Your task to perform on an android device: Go to calendar. Show me events next week Image 0: 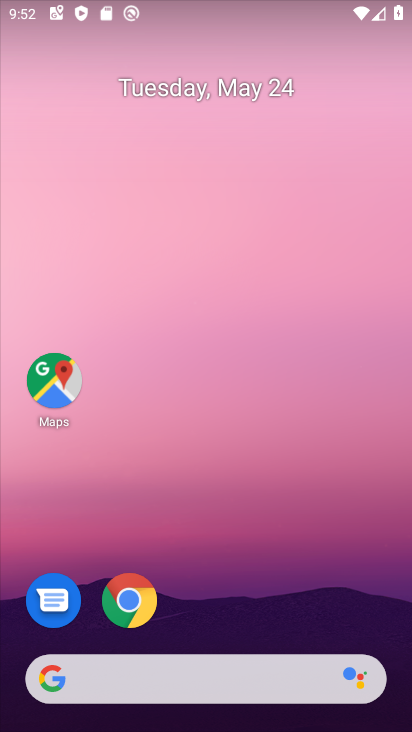
Step 0: drag from (230, 629) to (102, 8)
Your task to perform on an android device: Go to calendar. Show me events next week Image 1: 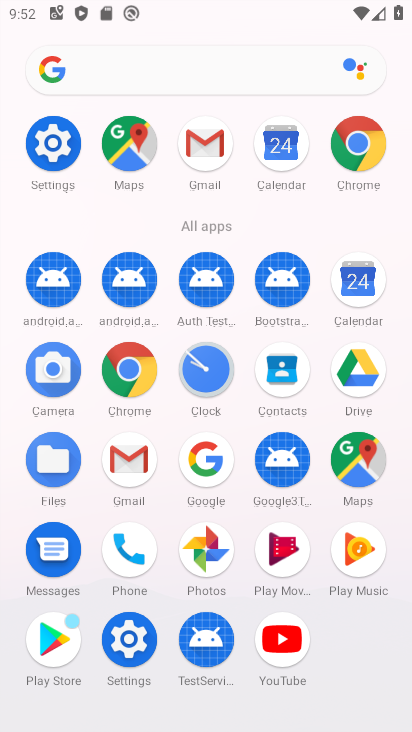
Step 1: click (362, 303)
Your task to perform on an android device: Go to calendar. Show me events next week Image 2: 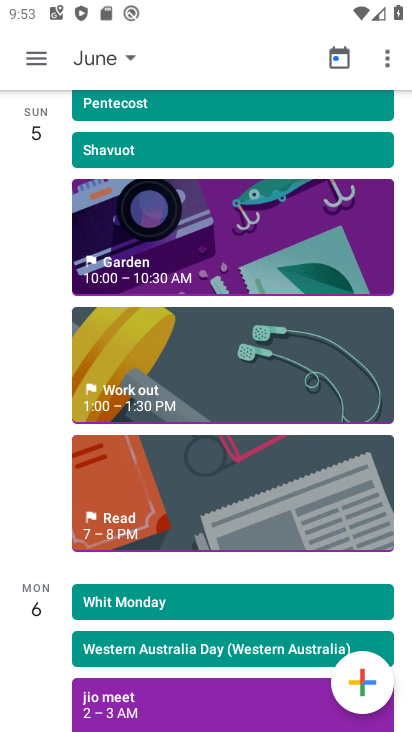
Step 2: click (43, 62)
Your task to perform on an android device: Go to calendar. Show me events next week Image 3: 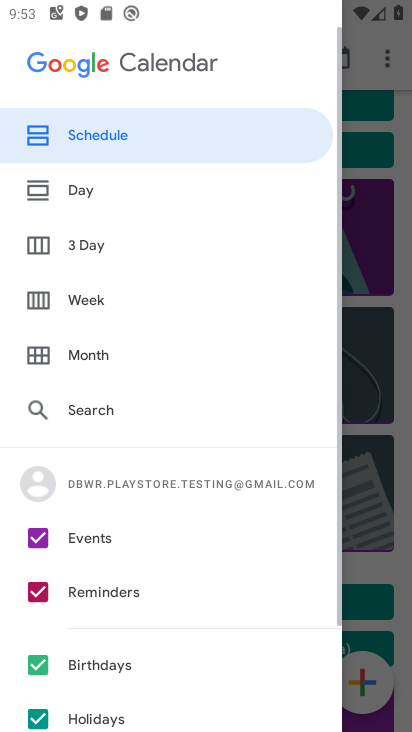
Step 3: click (34, 57)
Your task to perform on an android device: Go to calendar. Show me events next week Image 4: 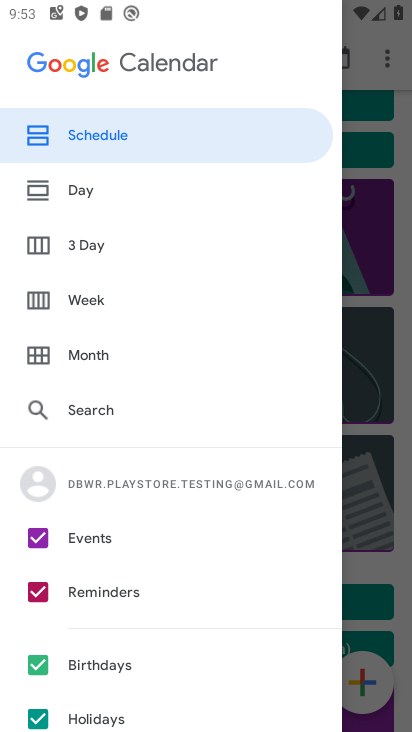
Step 4: click (100, 309)
Your task to perform on an android device: Go to calendar. Show me events next week Image 5: 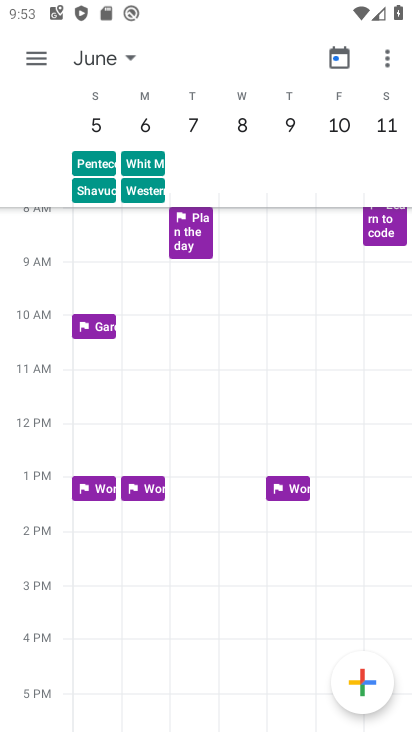
Step 5: click (86, 69)
Your task to perform on an android device: Go to calendar. Show me events next week Image 6: 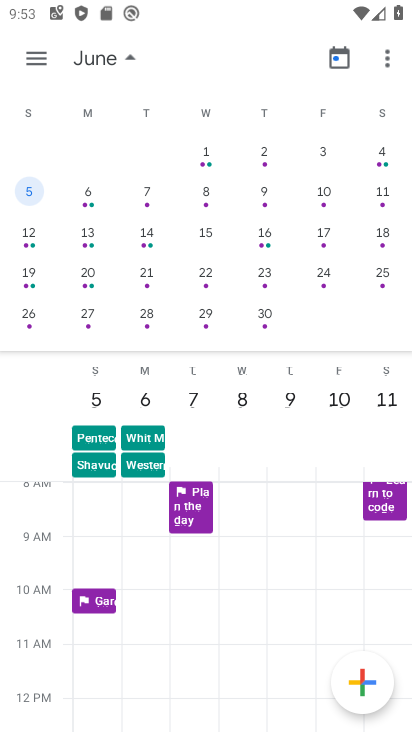
Step 6: click (77, 65)
Your task to perform on an android device: Go to calendar. Show me events next week Image 7: 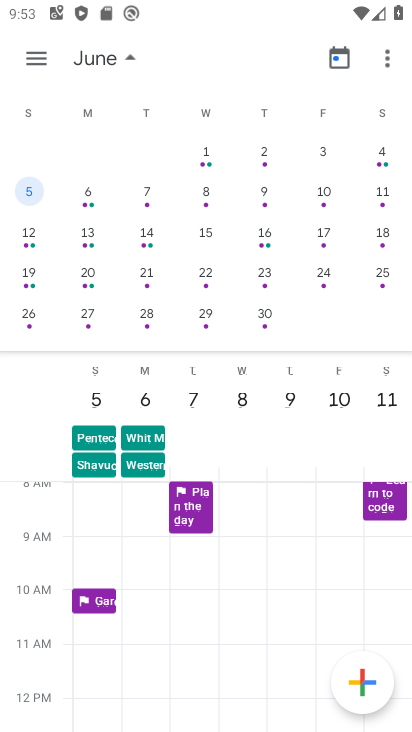
Step 7: drag from (65, 278) to (411, 300)
Your task to perform on an android device: Go to calendar. Show me events next week Image 8: 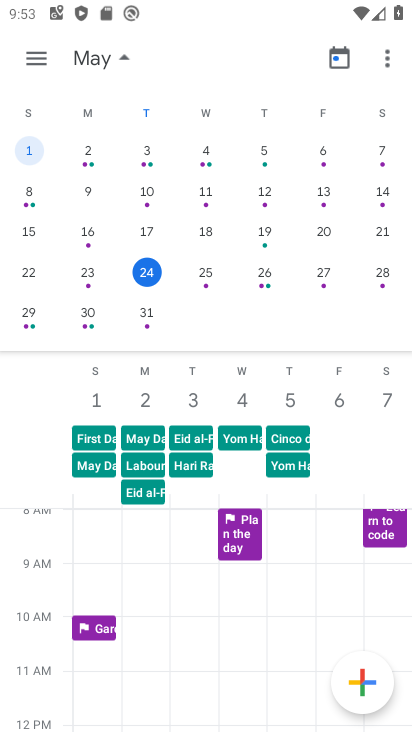
Step 8: click (35, 323)
Your task to perform on an android device: Go to calendar. Show me events next week Image 9: 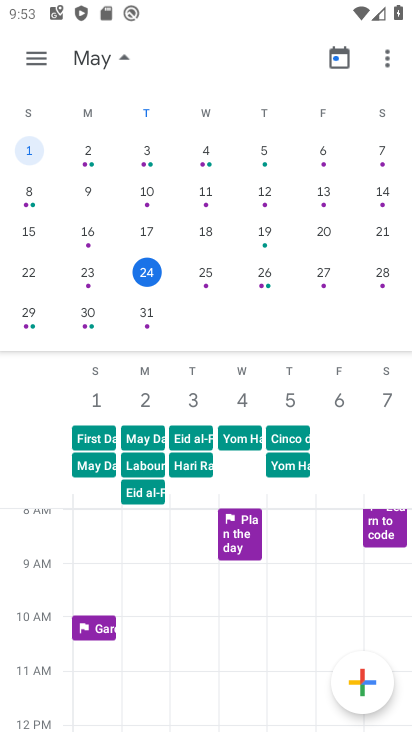
Step 9: click (35, 323)
Your task to perform on an android device: Go to calendar. Show me events next week Image 10: 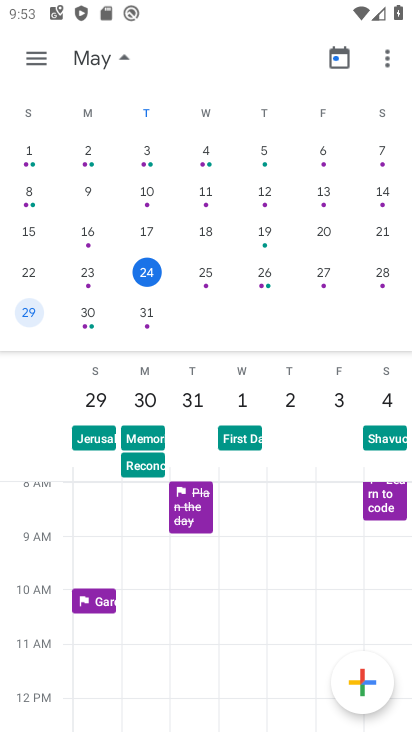
Step 10: task complete